Your task to perform on an android device: make emails show in primary in the gmail app Image 0: 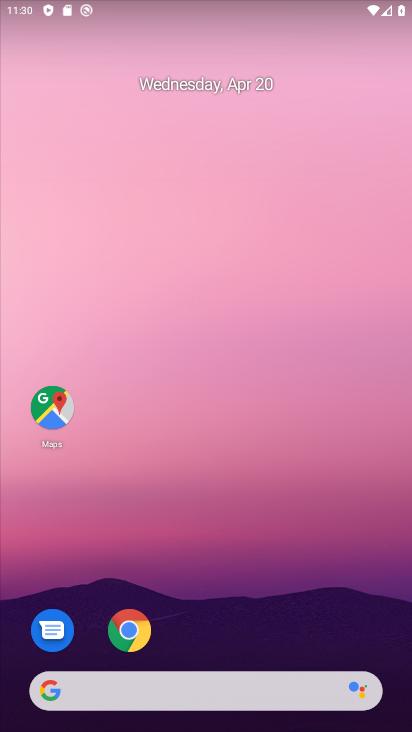
Step 0: drag from (207, 589) to (307, 0)
Your task to perform on an android device: make emails show in primary in the gmail app Image 1: 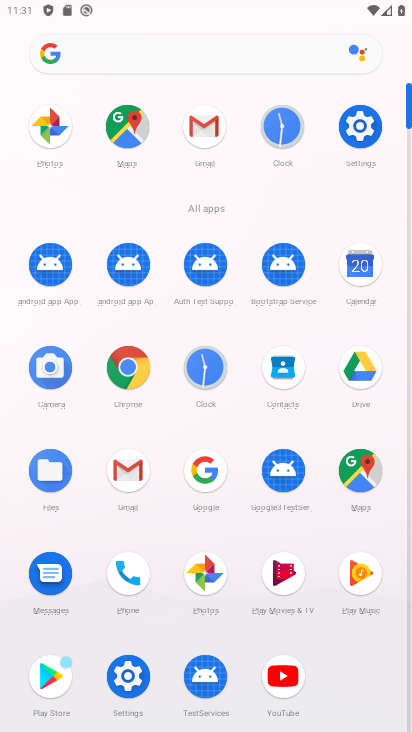
Step 1: click (125, 477)
Your task to perform on an android device: make emails show in primary in the gmail app Image 2: 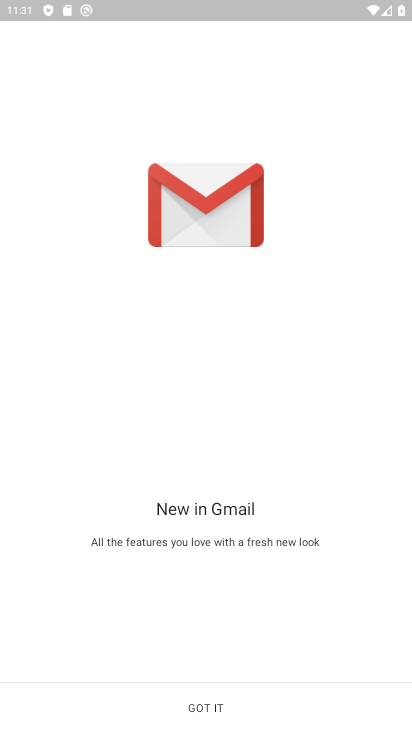
Step 2: click (200, 694)
Your task to perform on an android device: make emails show in primary in the gmail app Image 3: 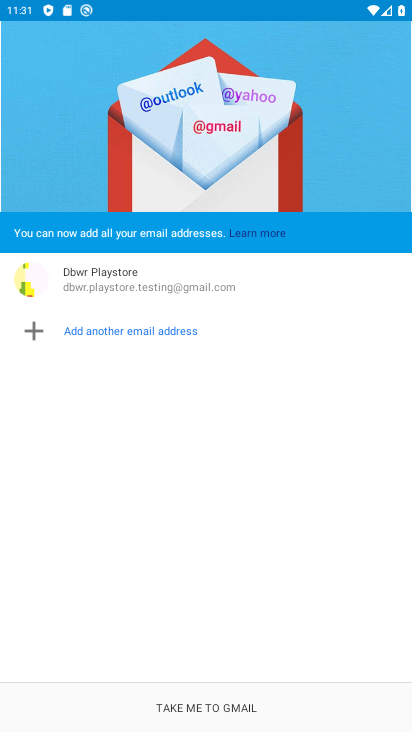
Step 3: click (177, 701)
Your task to perform on an android device: make emails show in primary in the gmail app Image 4: 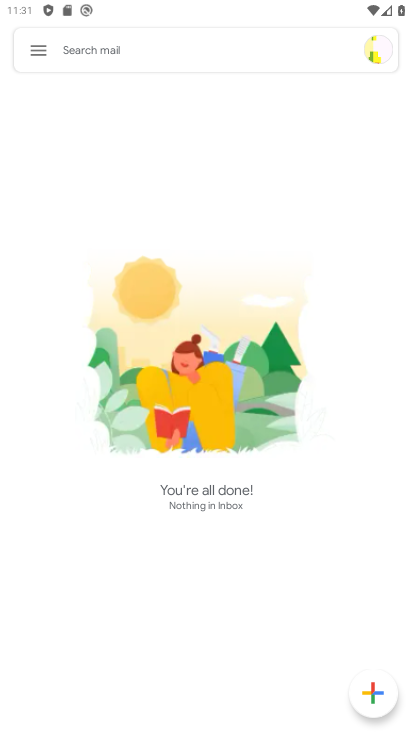
Step 4: drag from (296, 468) to (345, 233)
Your task to perform on an android device: make emails show in primary in the gmail app Image 5: 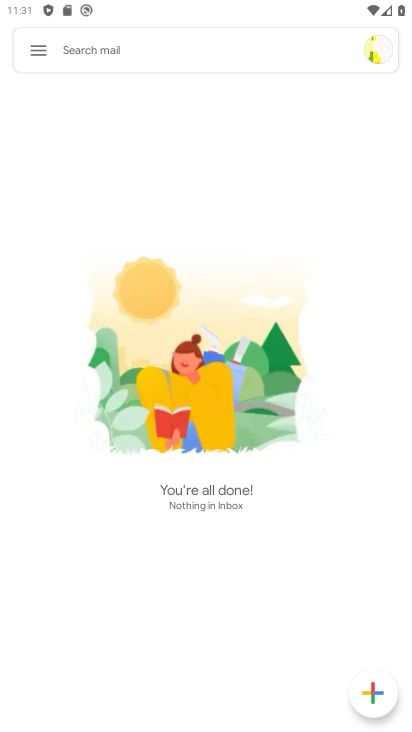
Step 5: click (37, 52)
Your task to perform on an android device: make emails show in primary in the gmail app Image 6: 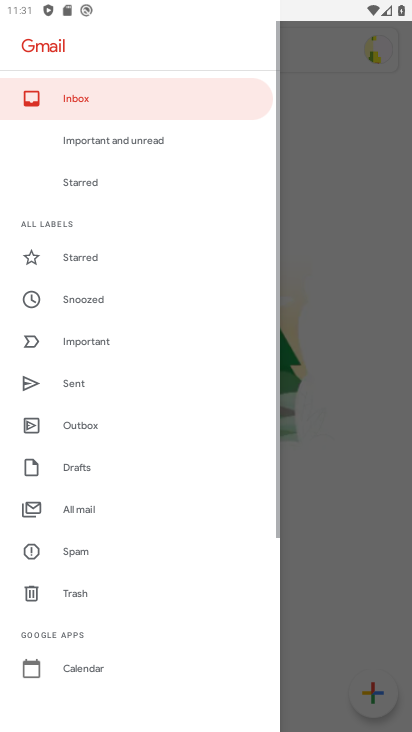
Step 6: task complete